Your task to perform on an android device: search for console tables on article.com Image 0: 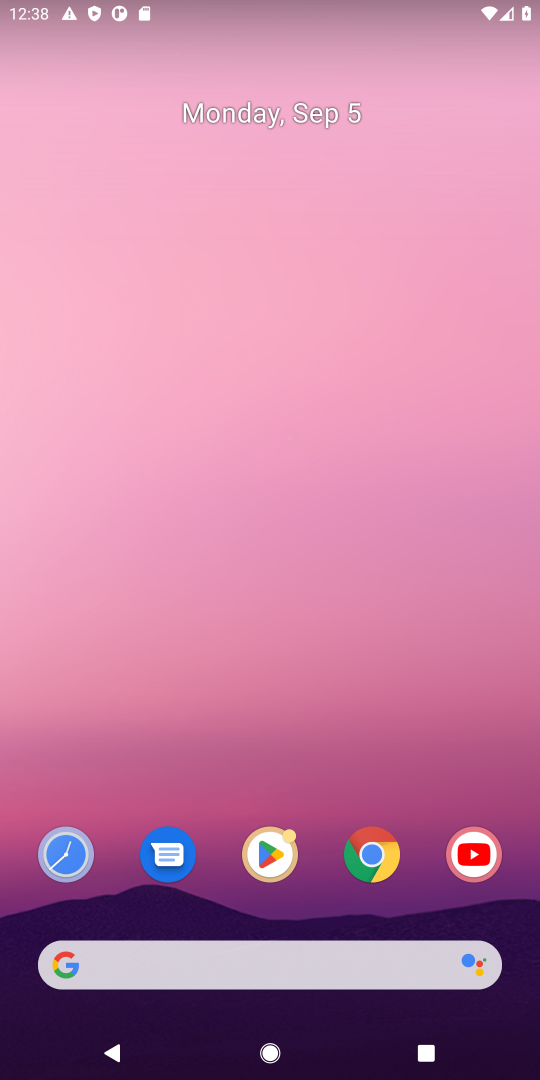
Step 0: press home button
Your task to perform on an android device: search for console tables on article.com Image 1: 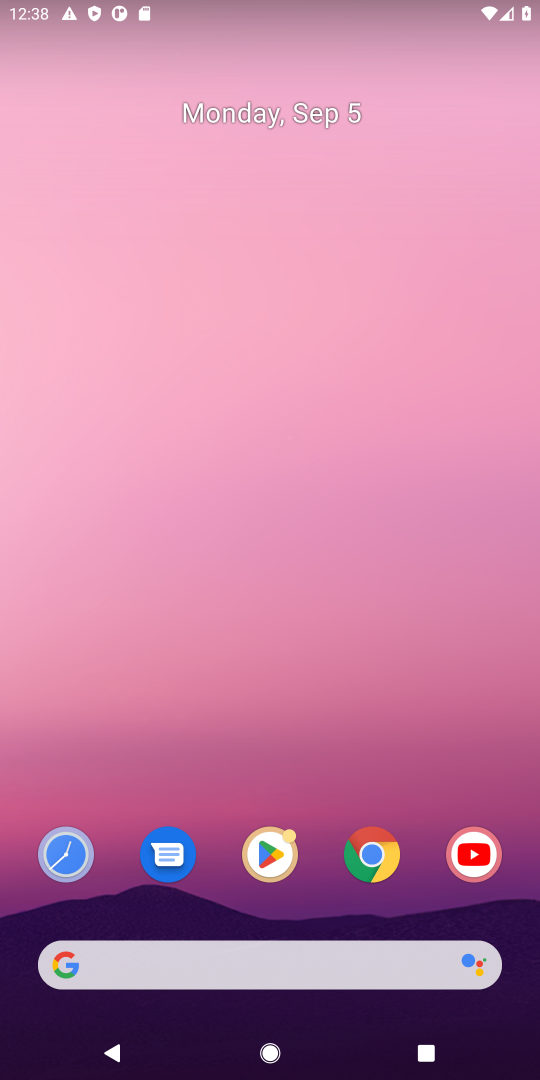
Step 1: press home button
Your task to perform on an android device: search for console tables on article.com Image 2: 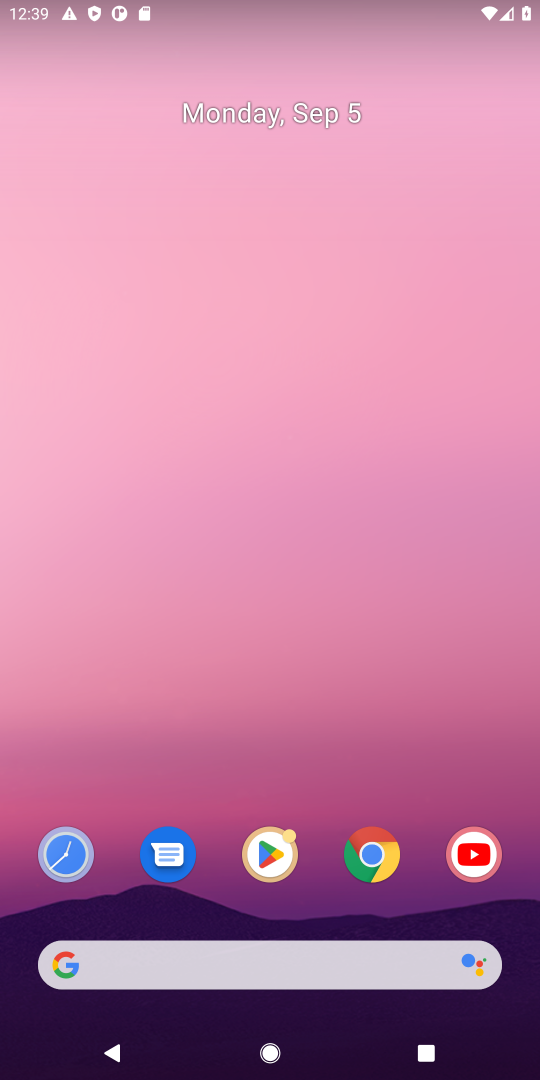
Step 2: click (352, 966)
Your task to perform on an android device: search for console tables on article.com Image 3: 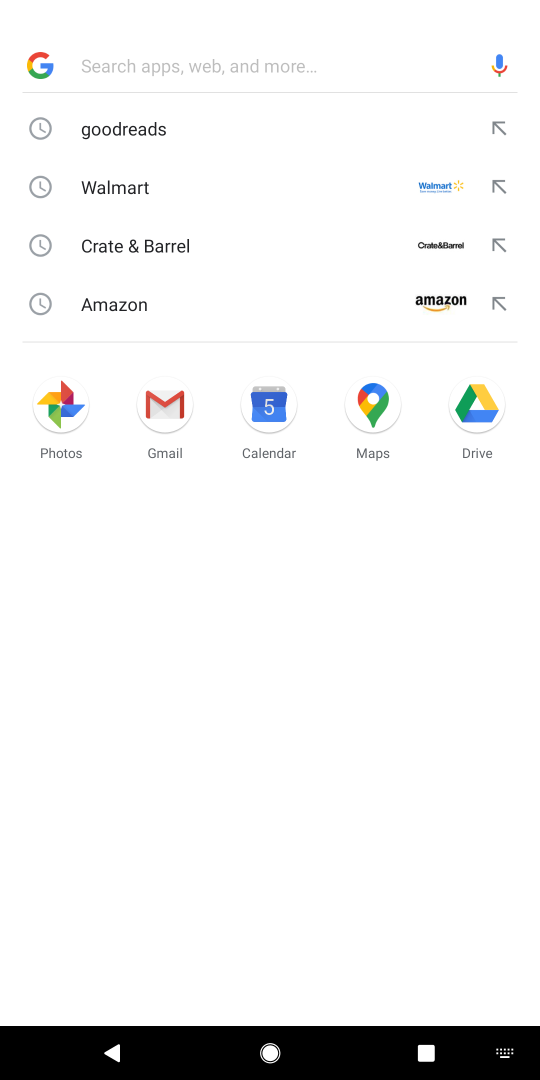
Step 3: type "article.com"
Your task to perform on an android device: search for console tables on article.com Image 4: 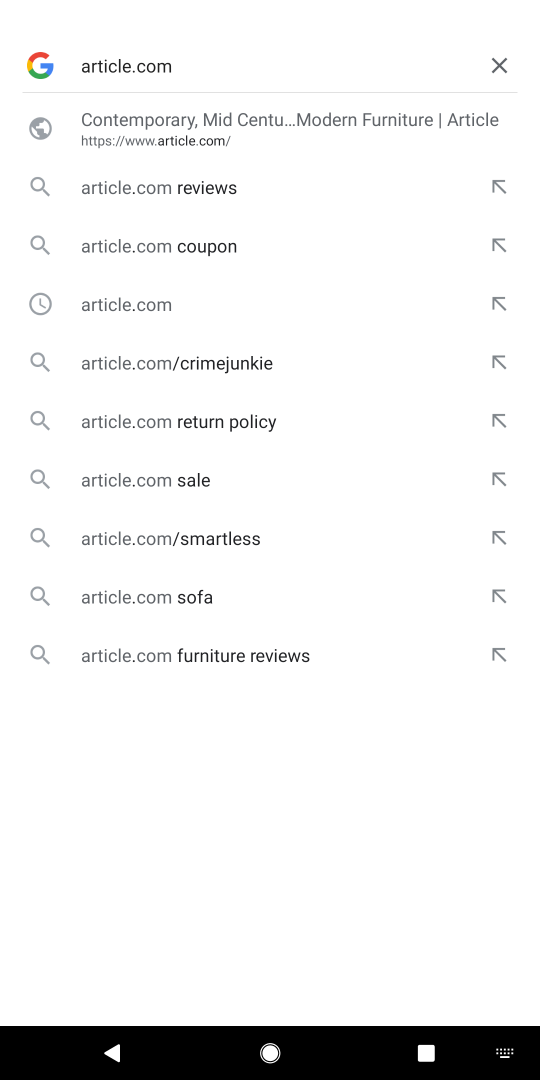
Step 4: press enter
Your task to perform on an android device: search for console tables on article.com Image 5: 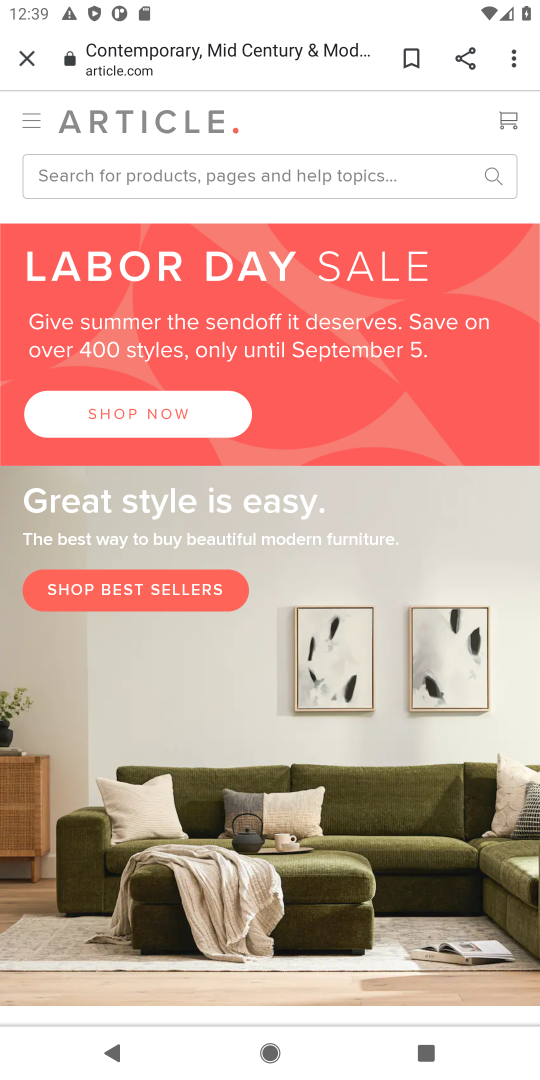
Step 5: click (69, 169)
Your task to perform on an android device: search for console tables on article.com Image 6: 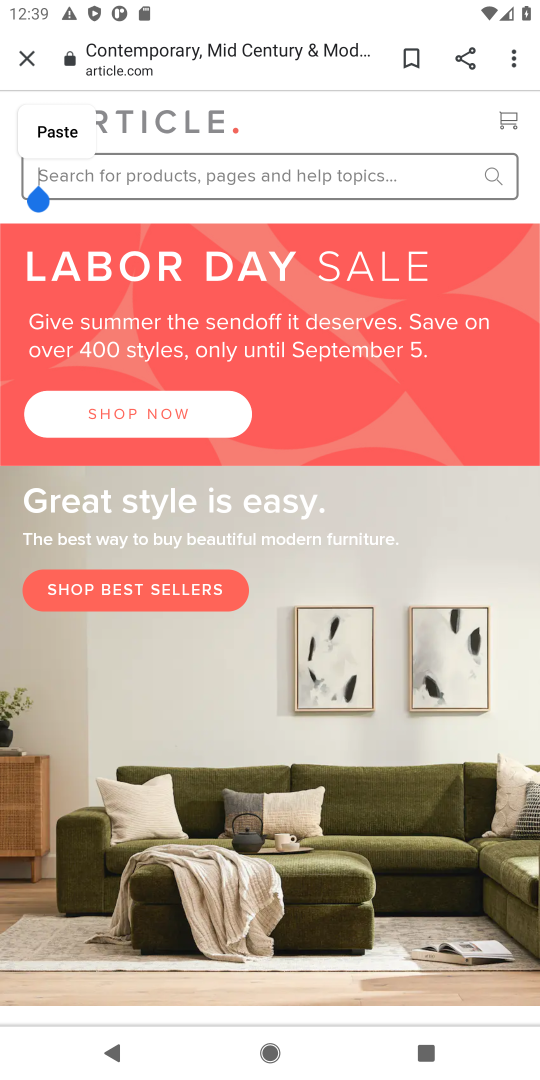
Step 6: type "console tables"
Your task to perform on an android device: search for console tables on article.com Image 7: 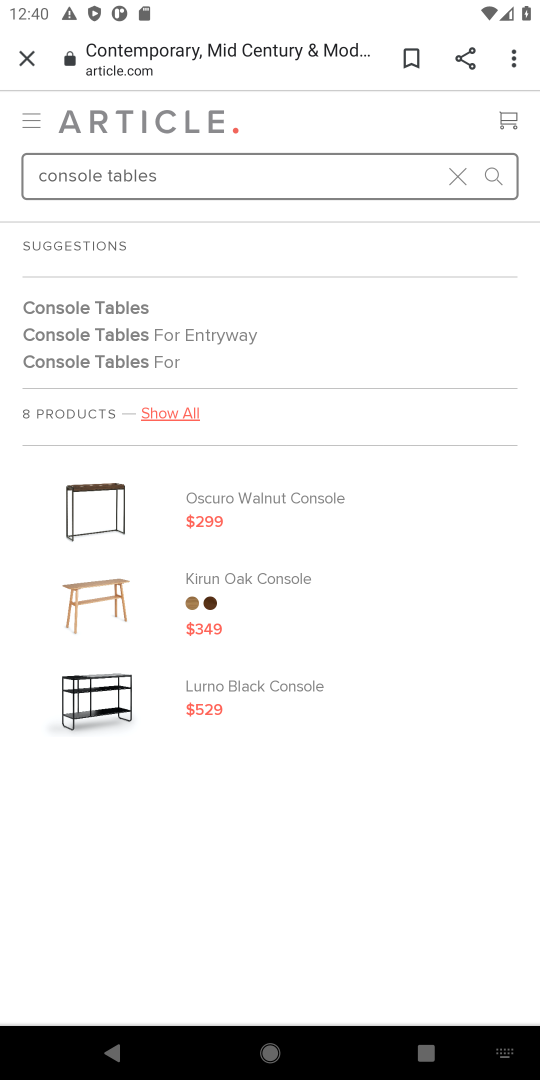
Step 7: task complete